Your task to perform on an android device: Open Google Chrome and click the shortcut for Amazon.com Image 0: 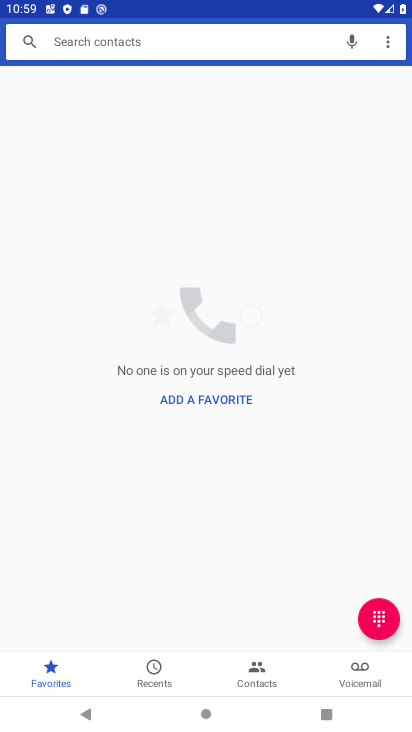
Step 0: press home button
Your task to perform on an android device: Open Google Chrome and click the shortcut for Amazon.com Image 1: 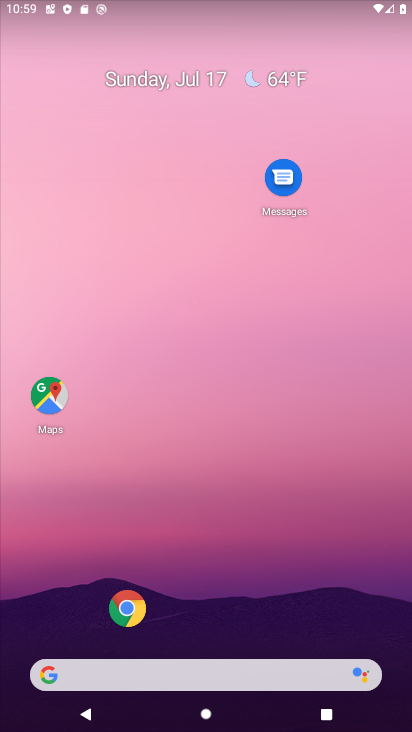
Step 1: click (120, 608)
Your task to perform on an android device: Open Google Chrome and click the shortcut for Amazon.com Image 2: 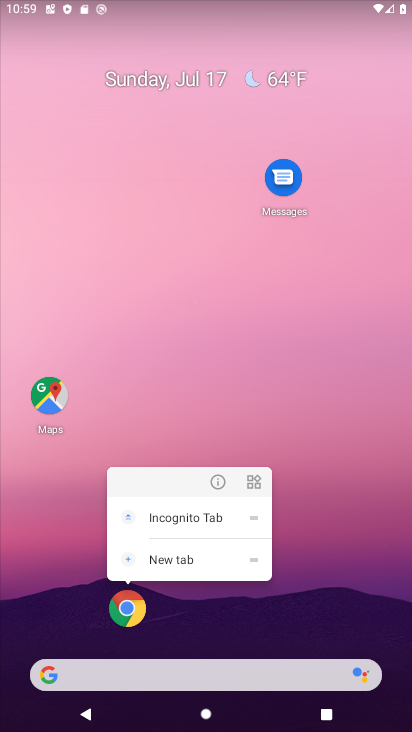
Step 2: click (138, 581)
Your task to perform on an android device: Open Google Chrome and click the shortcut for Amazon.com Image 3: 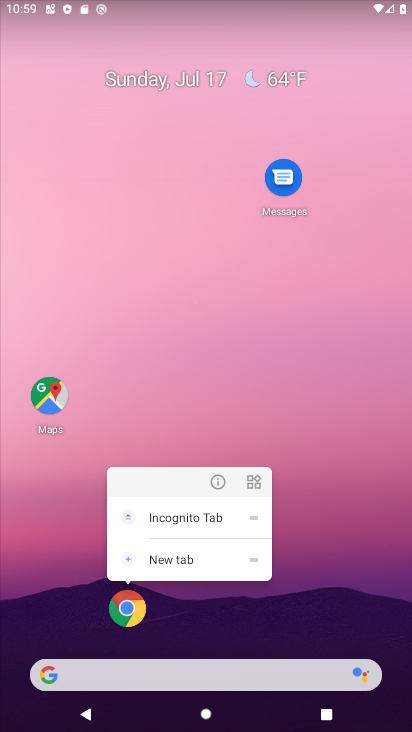
Step 3: click (138, 613)
Your task to perform on an android device: Open Google Chrome and click the shortcut for Amazon.com Image 4: 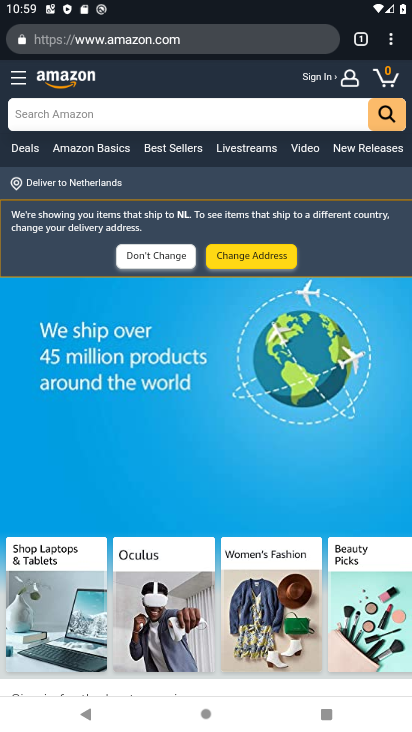
Step 4: click (108, 30)
Your task to perform on an android device: Open Google Chrome and click the shortcut for Amazon.com Image 5: 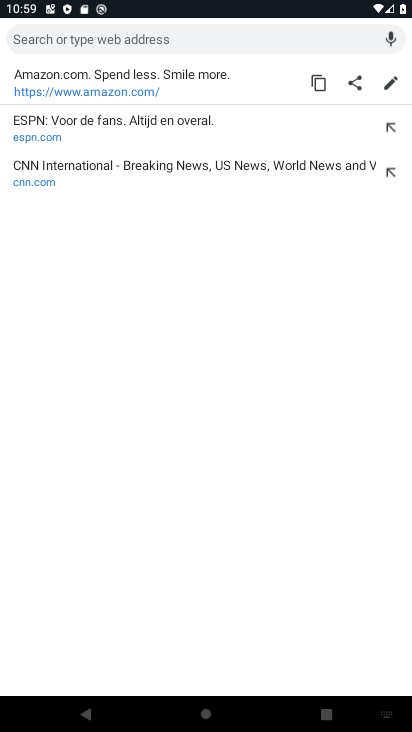
Step 5: task complete